Your task to perform on an android device: delete browsing data in the chrome app Image 0: 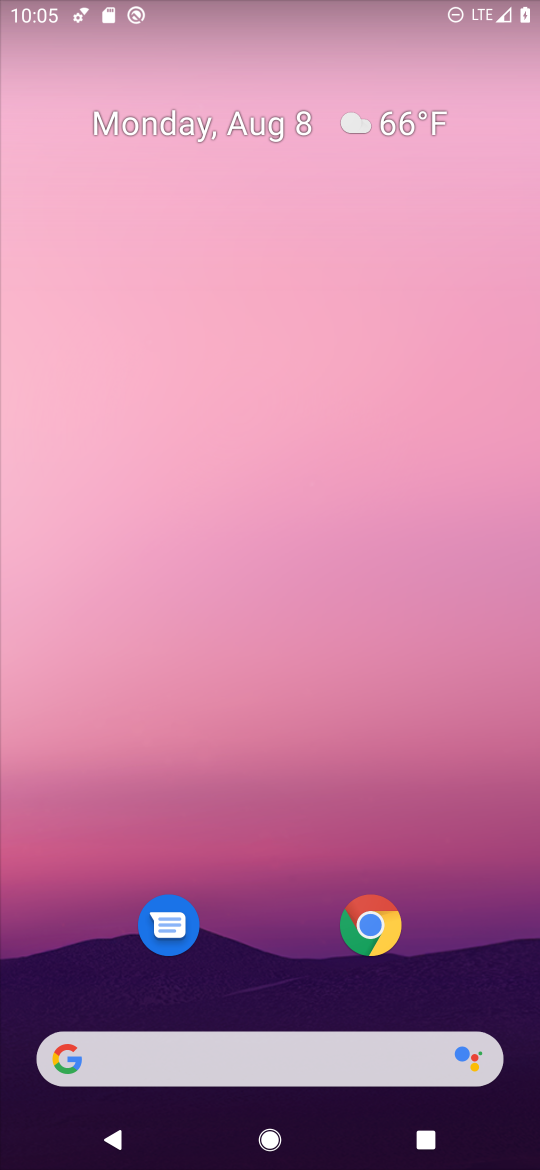
Step 0: drag from (187, 1084) to (502, 10)
Your task to perform on an android device: delete browsing data in the chrome app Image 1: 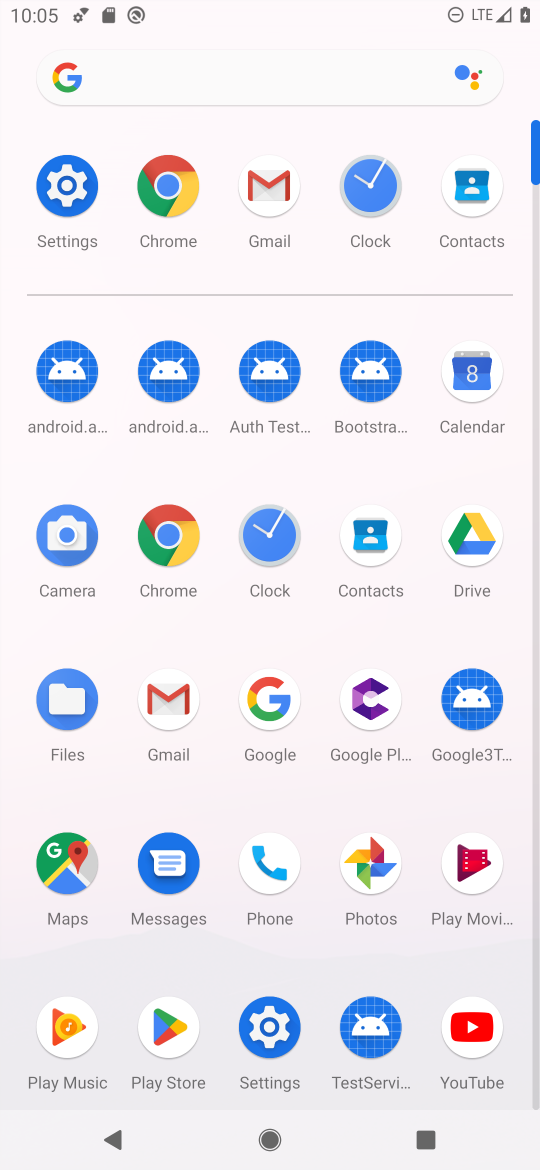
Step 1: click (168, 540)
Your task to perform on an android device: delete browsing data in the chrome app Image 2: 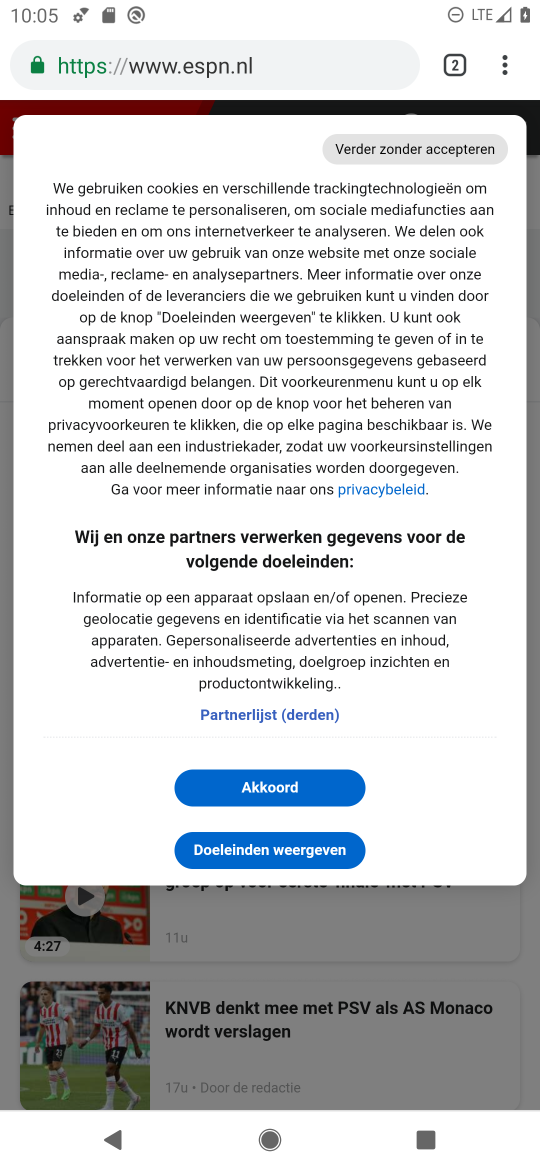
Step 2: drag from (512, 59) to (327, 451)
Your task to perform on an android device: delete browsing data in the chrome app Image 3: 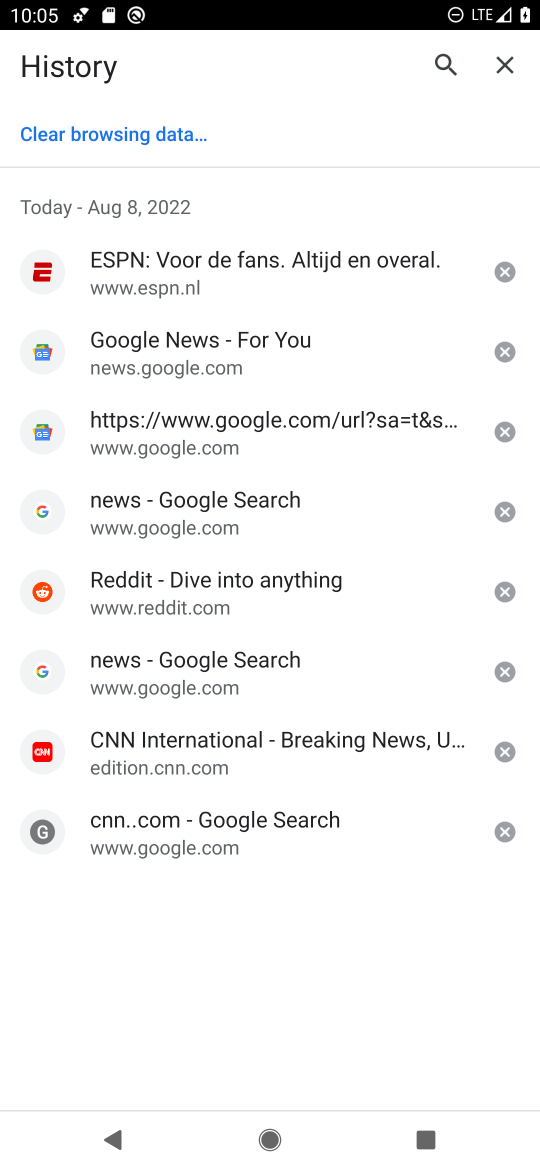
Step 3: click (150, 147)
Your task to perform on an android device: delete browsing data in the chrome app Image 4: 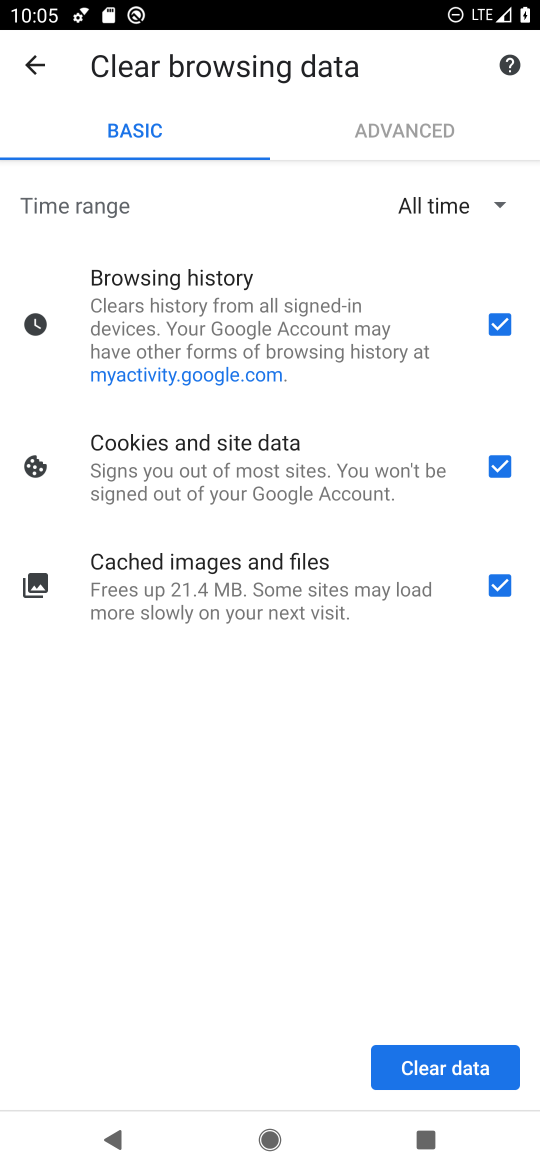
Step 4: click (482, 1061)
Your task to perform on an android device: delete browsing data in the chrome app Image 5: 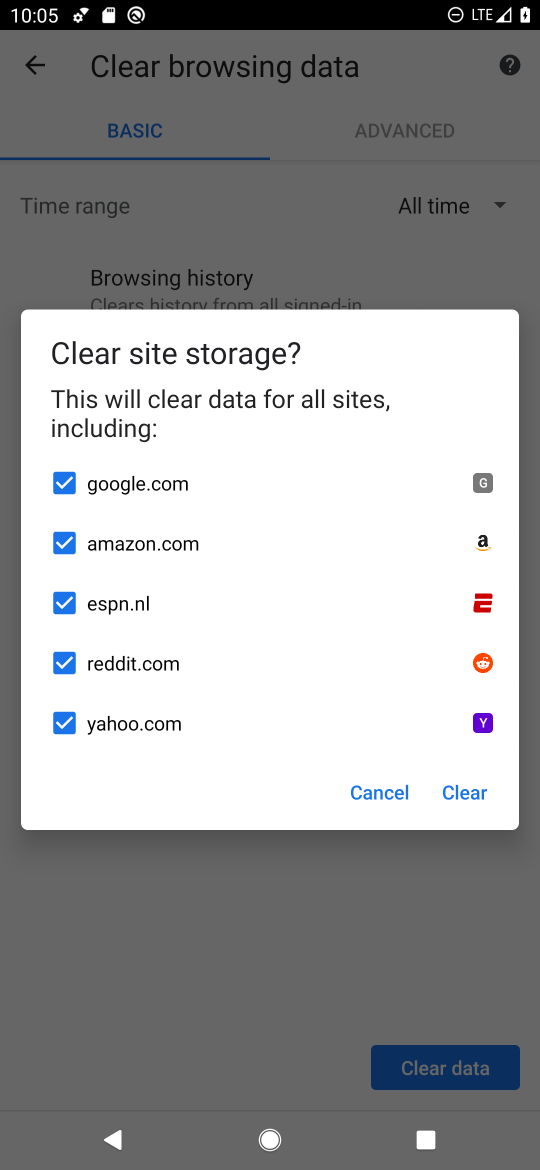
Step 5: click (466, 810)
Your task to perform on an android device: delete browsing data in the chrome app Image 6: 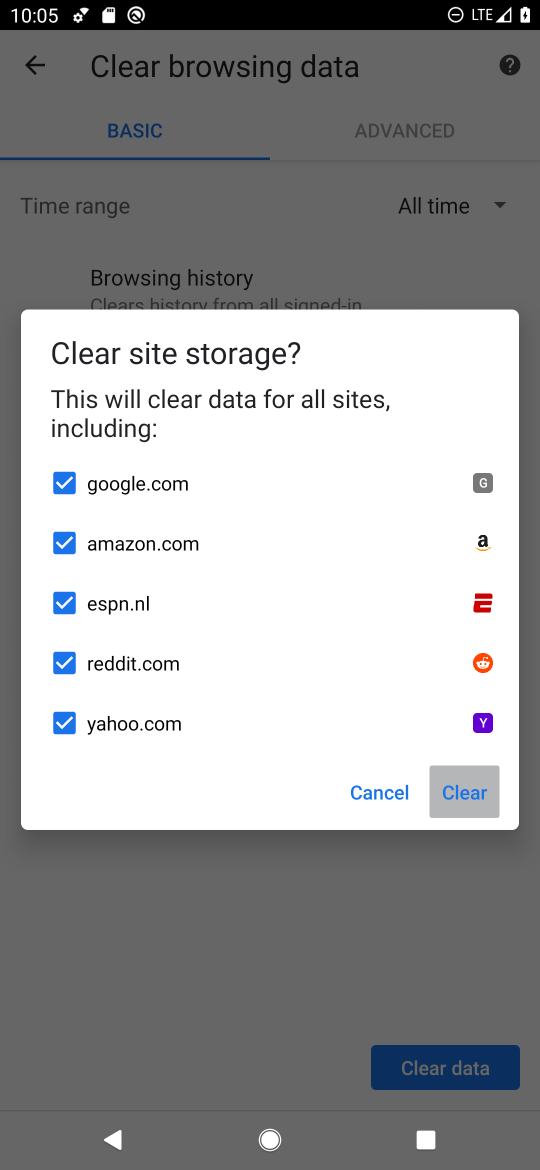
Step 6: click (463, 799)
Your task to perform on an android device: delete browsing data in the chrome app Image 7: 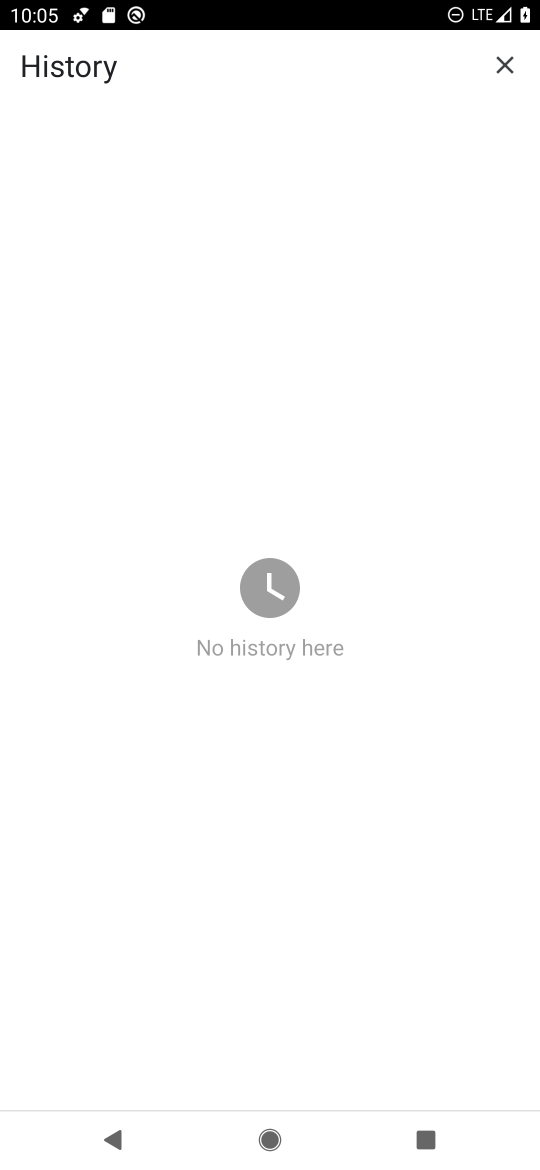
Step 7: task complete